Your task to perform on an android device: Clear the shopping cart on target. Add acer nitro to the cart on target Image 0: 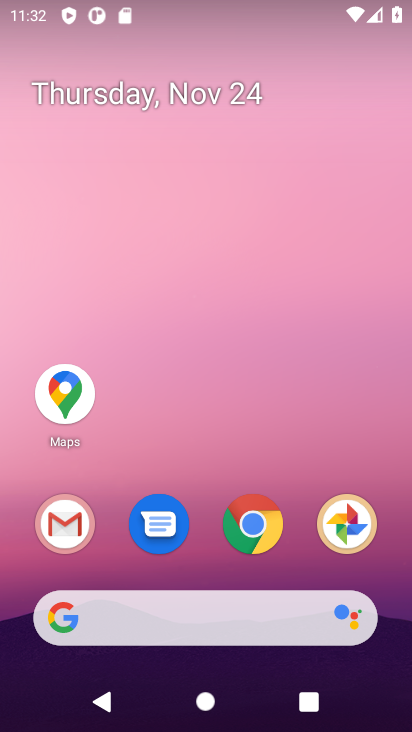
Step 0: click (247, 534)
Your task to perform on an android device: Clear the shopping cart on target. Add acer nitro to the cart on target Image 1: 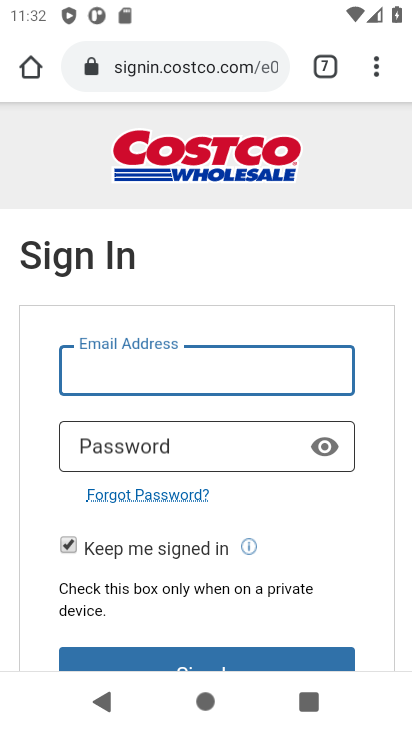
Step 1: click (195, 61)
Your task to perform on an android device: Clear the shopping cart on target. Add acer nitro to the cart on target Image 2: 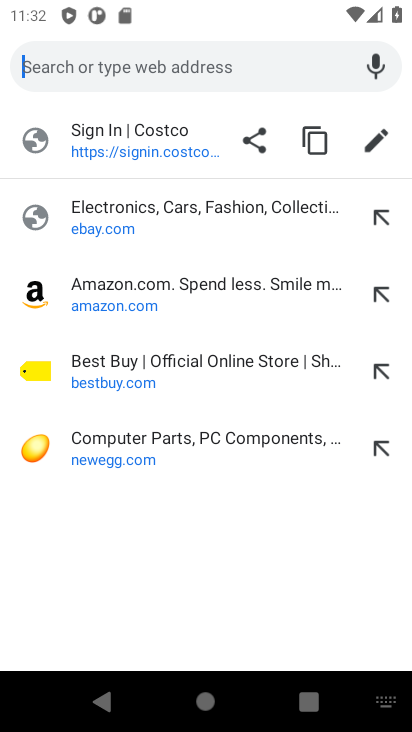
Step 2: type "target.com"
Your task to perform on an android device: Clear the shopping cart on target. Add acer nitro to the cart on target Image 3: 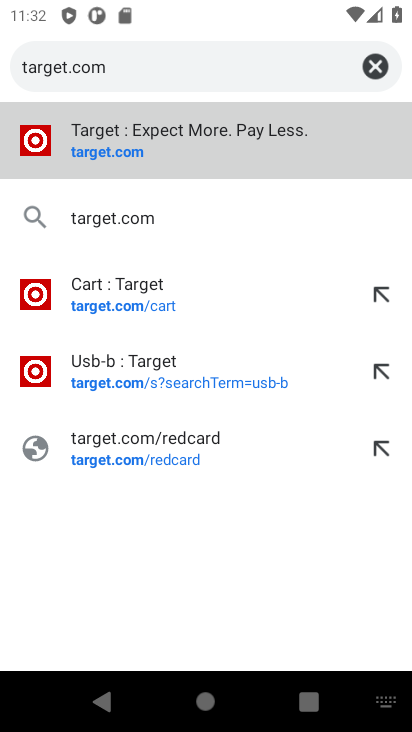
Step 3: click (70, 159)
Your task to perform on an android device: Clear the shopping cart on target. Add acer nitro to the cart on target Image 4: 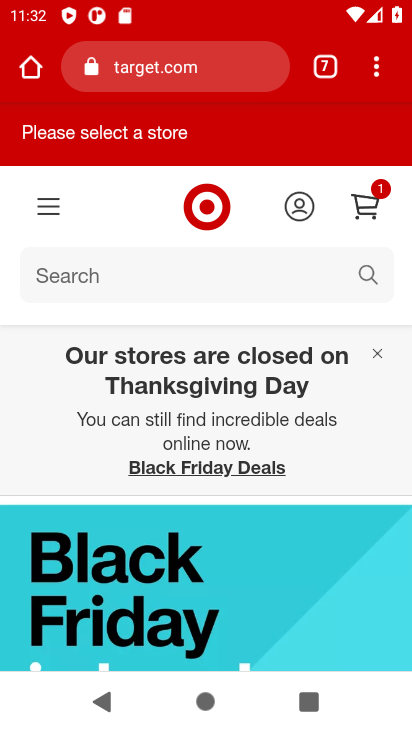
Step 4: click (369, 201)
Your task to perform on an android device: Clear the shopping cart on target. Add acer nitro to the cart on target Image 5: 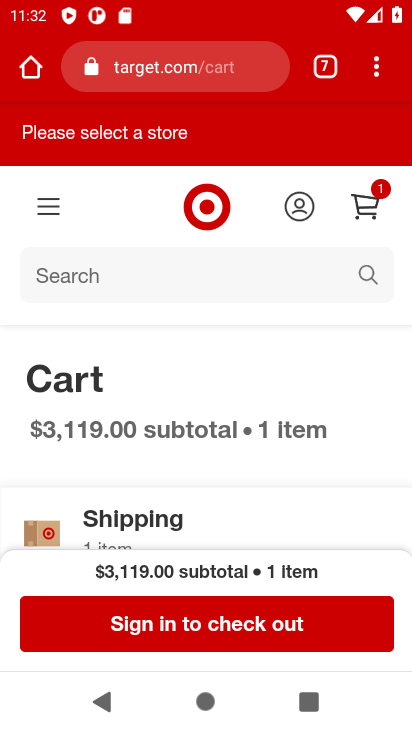
Step 5: drag from (241, 451) to (248, 159)
Your task to perform on an android device: Clear the shopping cart on target. Add acer nitro to the cart on target Image 6: 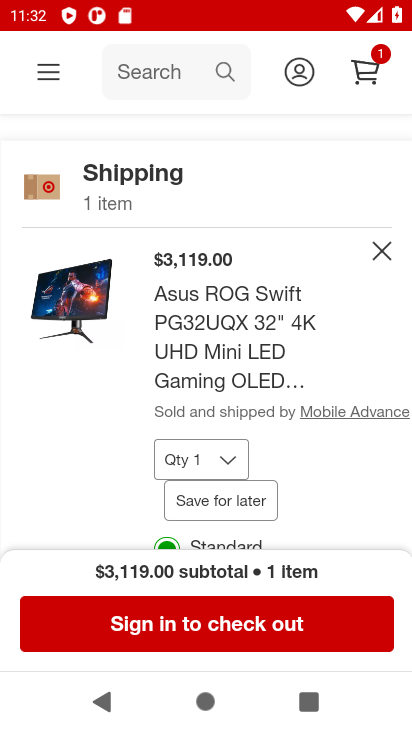
Step 6: click (376, 252)
Your task to perform on an android device: Clear the shopping cart on target. Add acer nitro to the cart on target Image 7: 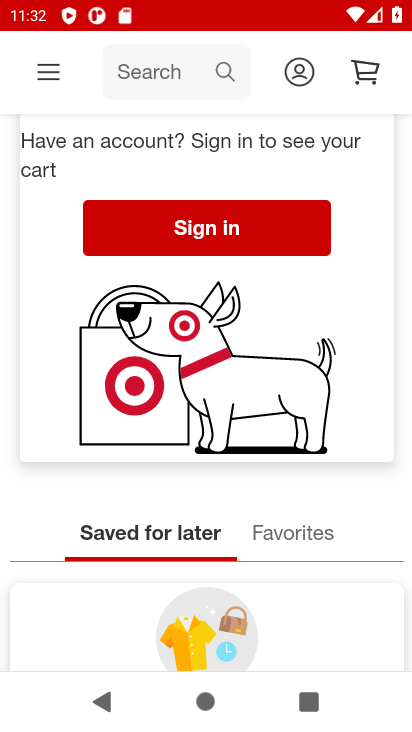
Step 7: drag from (277, 330) to (280, 462)
Your task to perform on an android device: Clear the shopping cart on target. Add acer nitro to the cart on target Image 8: 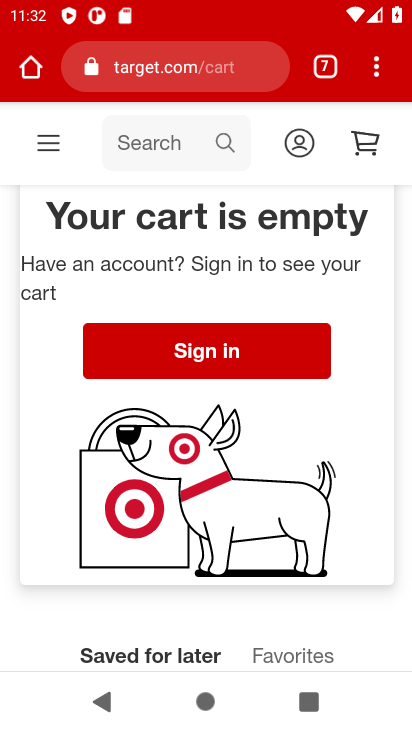
Step 8: click (227, 141)
Your task to perform on an android device: Clear the shopping cart on target. Add acer nitro to the cart on target Image 9: 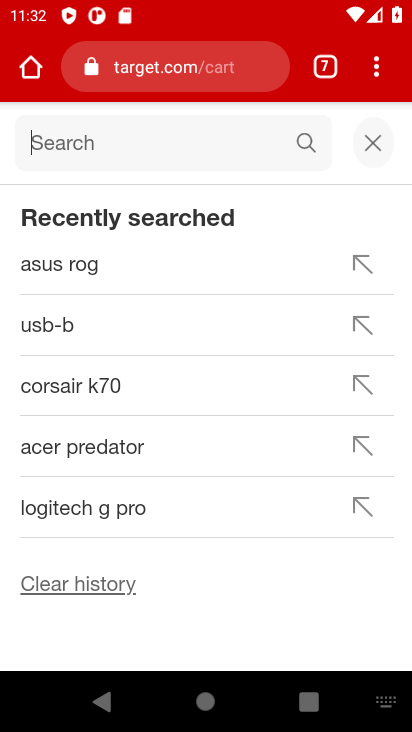
Step 9: type "acer nitro"
Your task to perform on an android device: Clear the shopping cart on target. Add acer nitro to the cart on target Image 10: 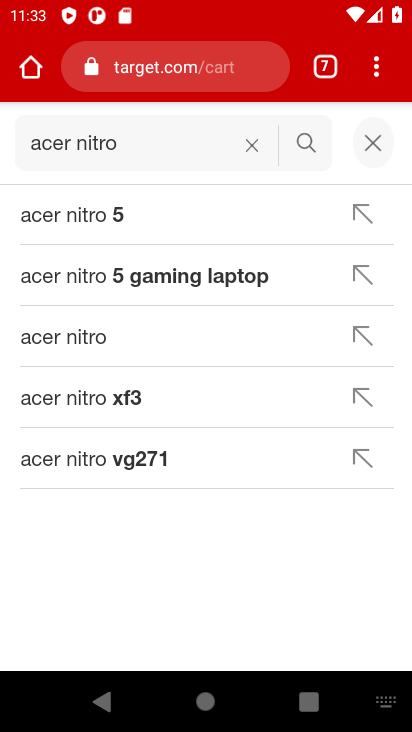
Step 10: click (64, 336)
Your task to perform on an android device: Clear the shopping cart on target. Add acer nitro to the cart on target Image 11: 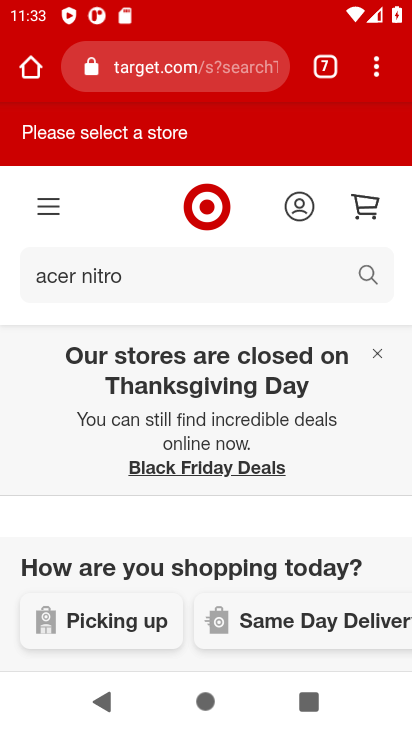
Step 11: drag from (148, 435) to (141, 181)
Your task to perform on an android device: Clear the shopping cart on target. Add acer nitro to the cart on target Image 12: 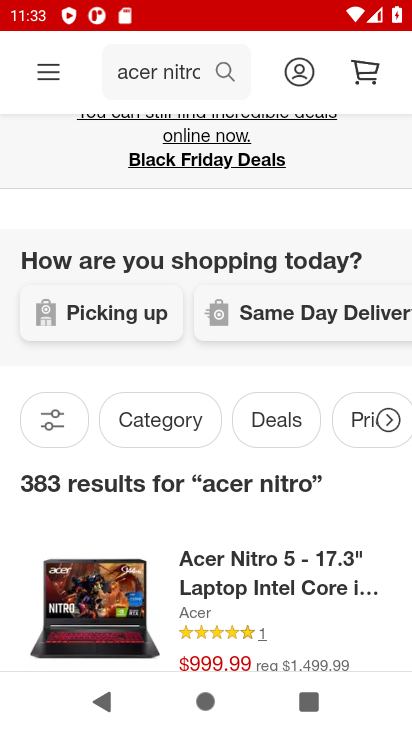
Step 12: drag from (168, 514) to (173, 278)
Your task to perform on an android device: Clear the shopping cart on target. Add acer nitro to the cart on target Image 13: 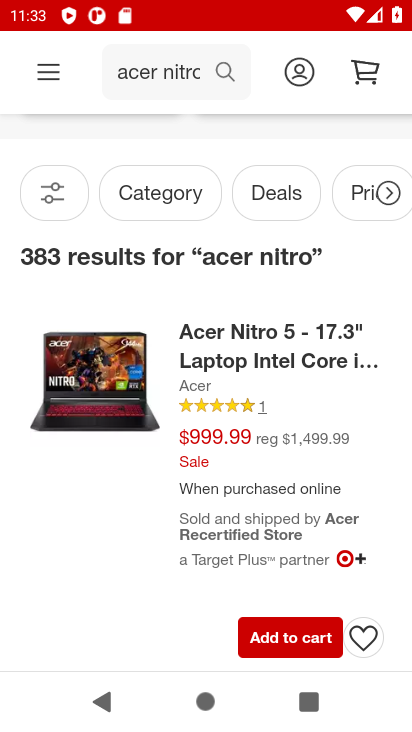
Step 13: click (286, 640)
Your task to perform on an android device: Clear the shopping cart on target. Add acer nitro to the cart on target Image 14: 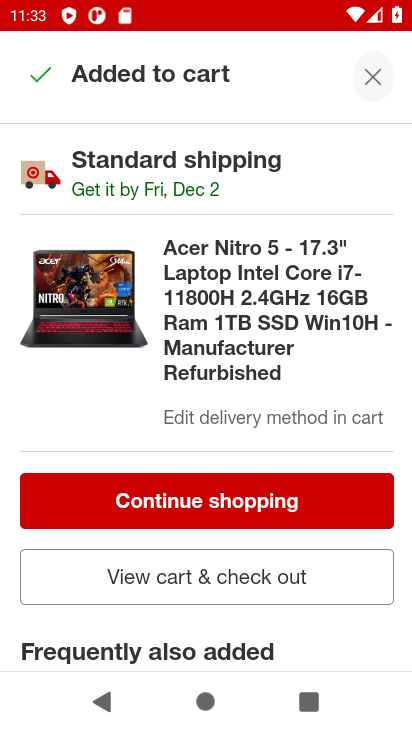
Step 14: task complete